Your task to perform on an android device: Turn off the flashlight Image 0: 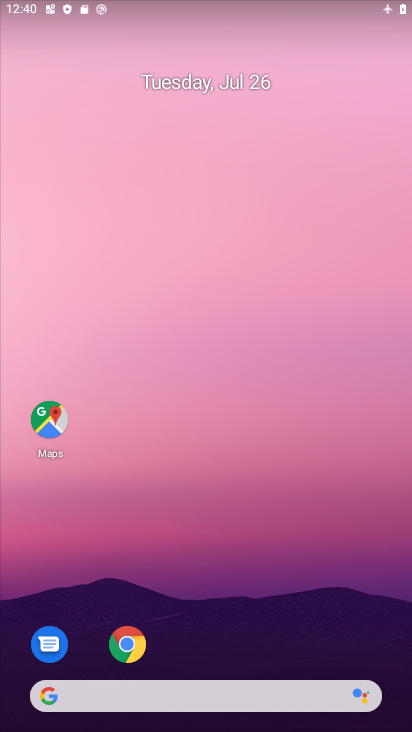
Step 0: drag from (177, 659) to (204, 118)
Your task to perform on an android device: Turn off the flashlight Image 1: 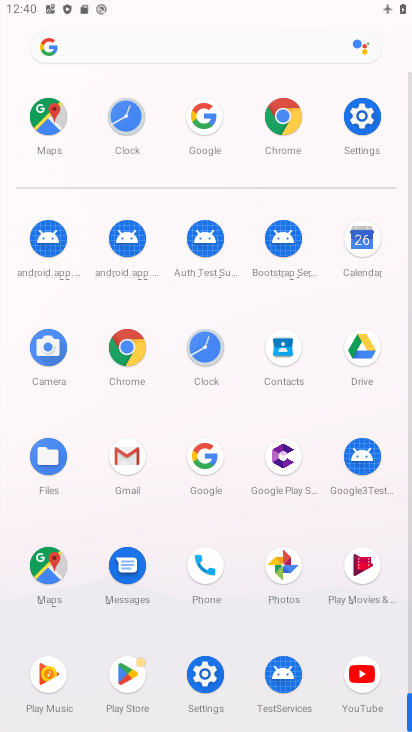
Step 1: task complete